Your task to perform on an android device: Go to settings Image 0: 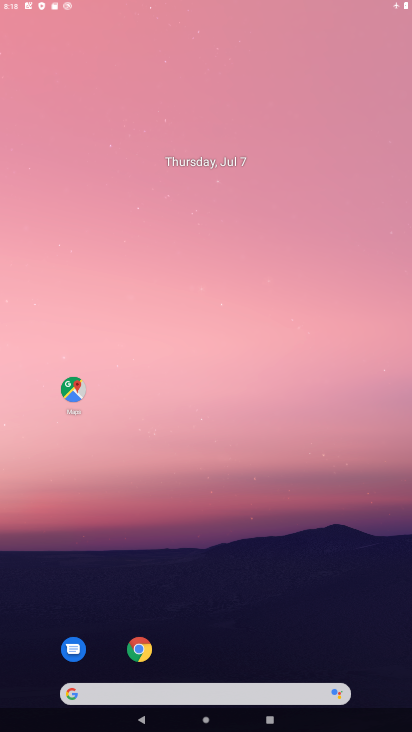
Step 0: press back button
Your task to perform on an android device: Go to settings Image 1: 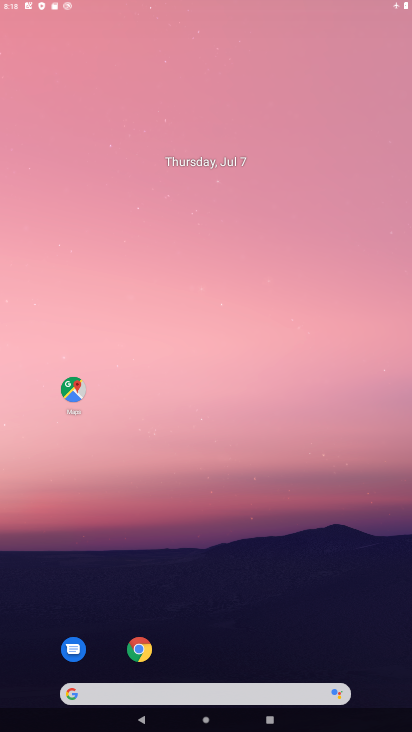
Step 1: drag from (258, 685) to (251, 372)
Your task to perform on an android device: Go to settings Image 2: 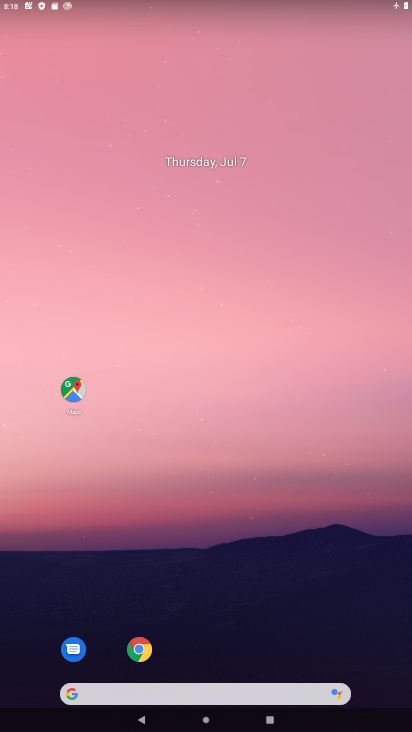
Step 2: drag from (250, 665) to (248, 142)
Your task to perform on an android device: Go to settings Image 3: 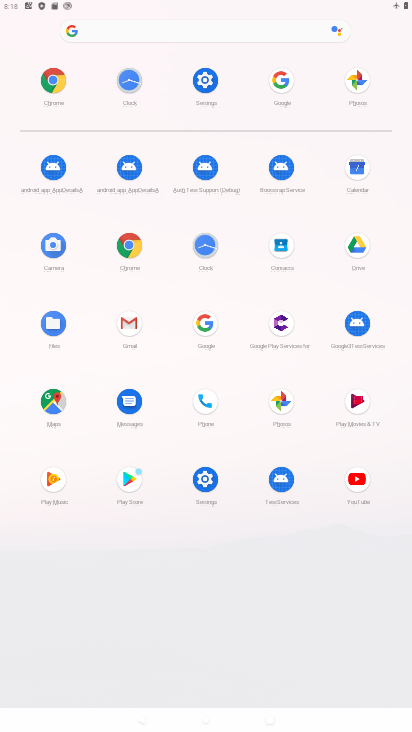
Step 3: click (207, 483)
Your task to perform on an android device: Go to settings Image 4: 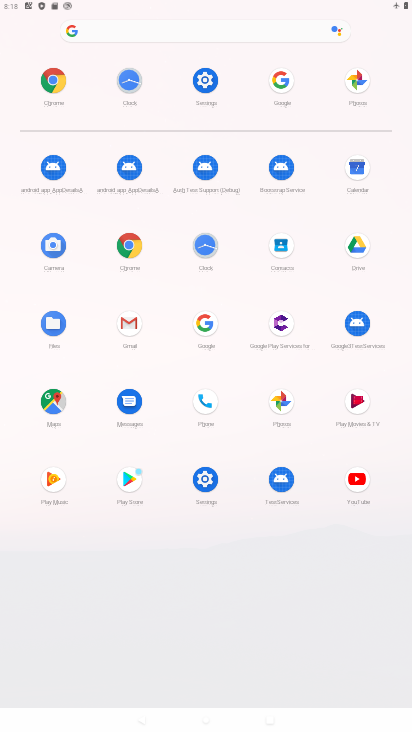
Step 4: click (207, 479)
Your task to perform on an android device: Go to settings Image 5: 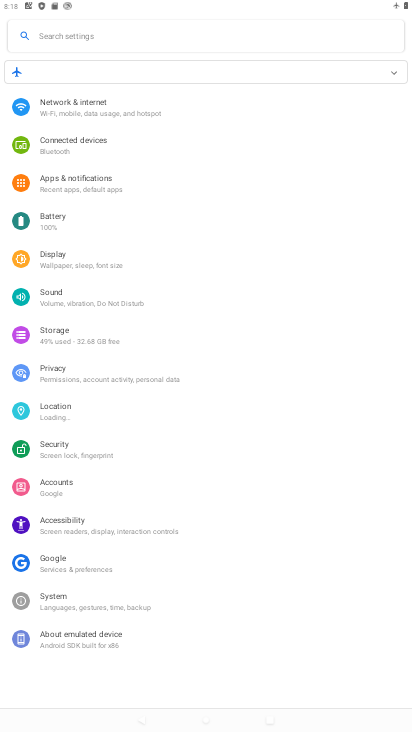
Step 5: task complete